Your task to perform on an android device: open a bookmark in the chrome app Image 0: 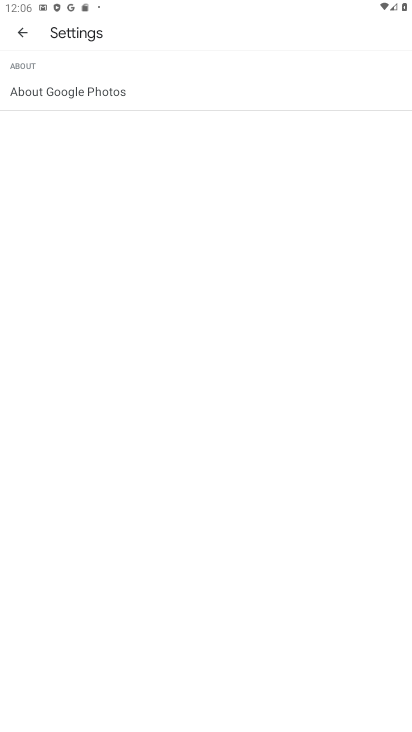
Step 0: press home button
Your task to perform on an android device: open a bookmark in the chrome app Image 1: 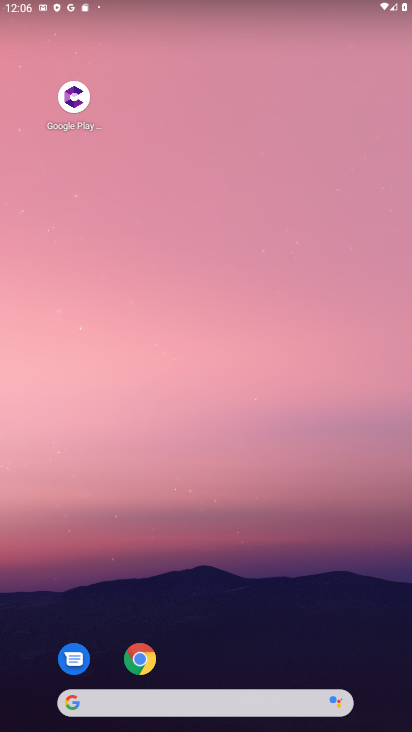
Step 1: drag from (293, 625) to (247, 0)
Your task to perform on an android device: open a bookmark in the chrome app Image 2: 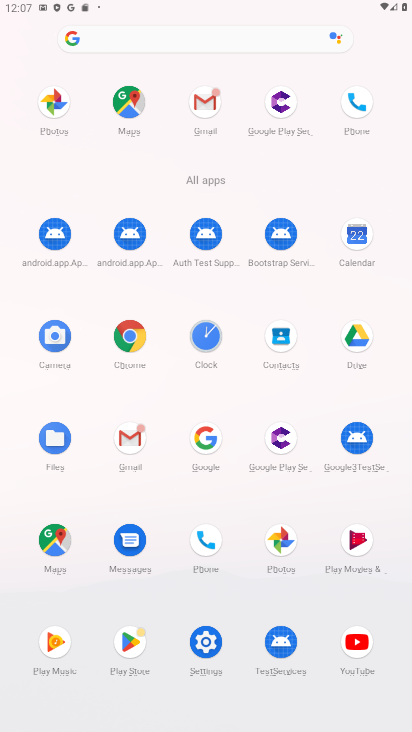
Step 2: click (127, 337)
Your task to perform on an android device: open a bookmark in the chrome app Image 3: 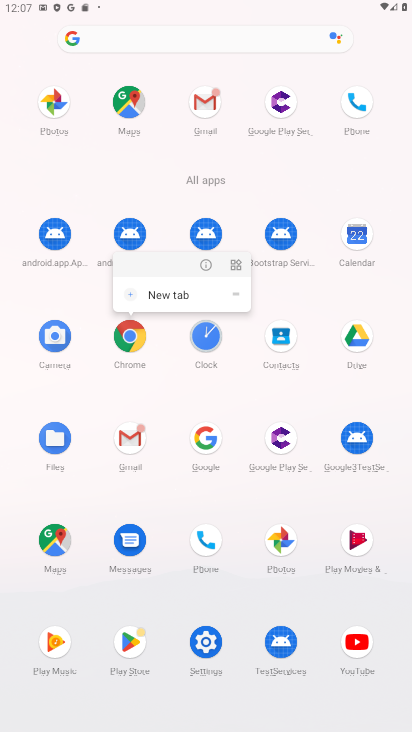
Step 3: click (114, 335)
Your task to perform on an android device: open a bookmark in the chrome app Image 4: 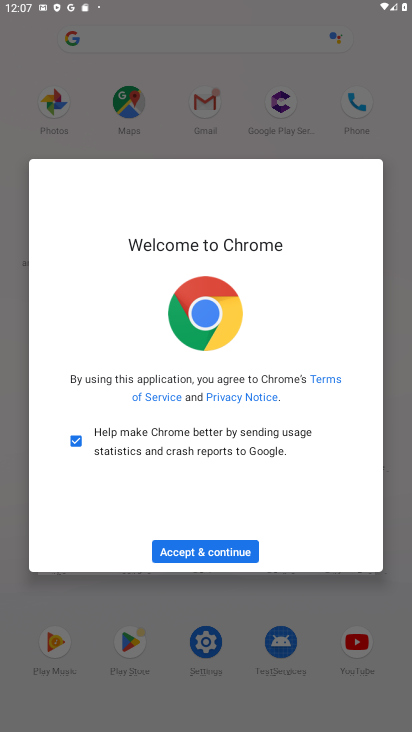
Step 4: click (130, 339)
Your task to perform on an android device: open a bookmark in the chrome app Image 5: 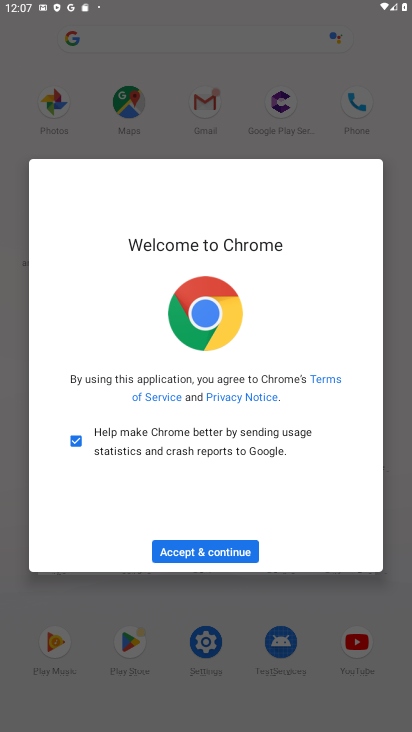
Step 5: click (203, 548)
Your task to perform on an android device: open a bookmark in the chrome app Image 6: 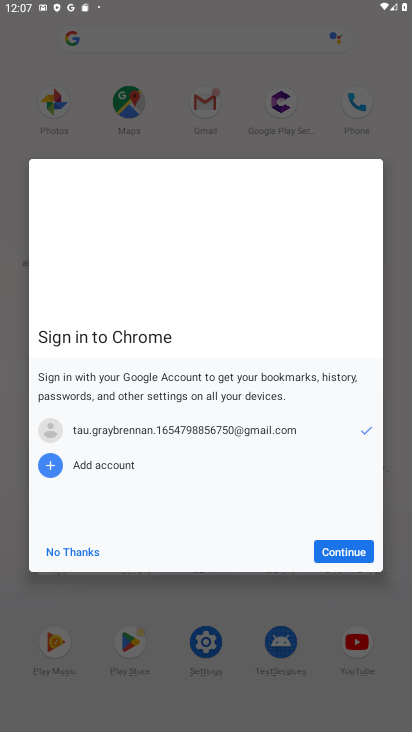
Step 6: click (91, 548)
Your task to perform on an android device: open a bookmark in the chrome app Image 7: 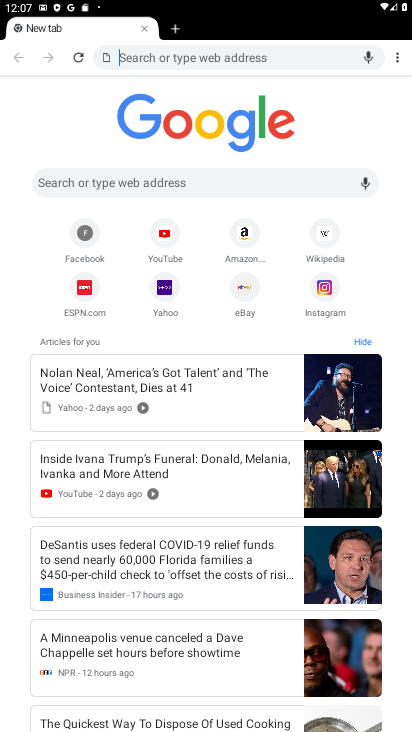
Step 7: drag from (392, 64) to (335, 117)
Your task to perform on an android device: open a bookmark in the chrome app Image 8: 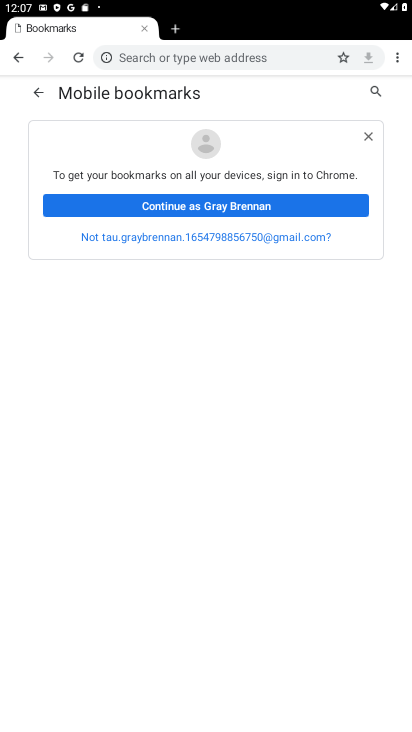
Step 8: click (199, 203)
Your task to perform on an android device: open a bookmark in the chrome app Image 9: 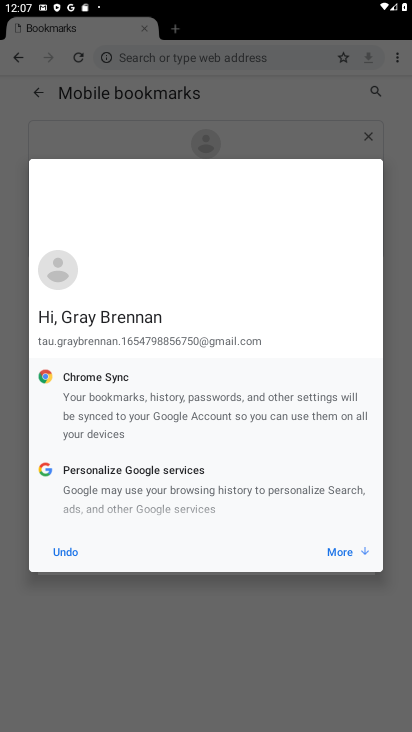
Step 9: click (340, 551)
Your task to perform on an android device: open a bookmark in the chrome app Image 10: 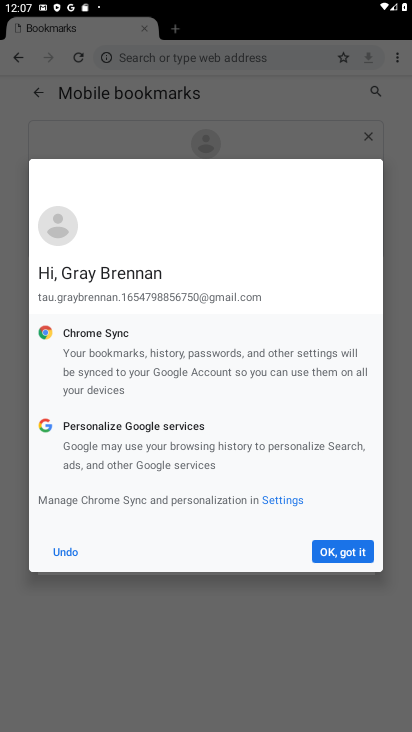
Step 10: click (338, 544)
Your task to perform on an android device: open a bookmark in the chrome app Image 11: 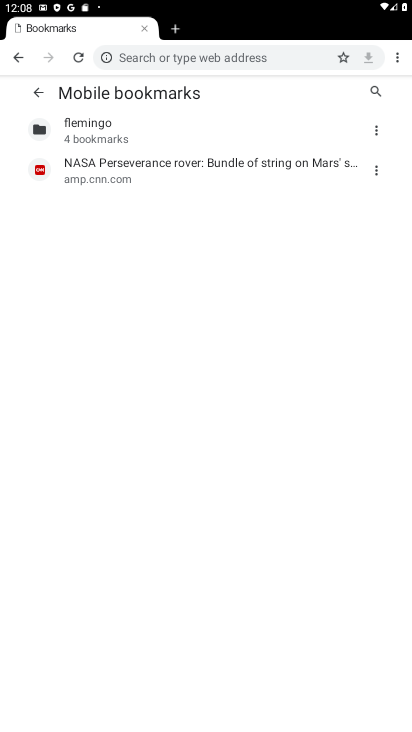
Step 11: task complete